Your task to perform on an android device: Play the last video I watched on Youtube Image 0: 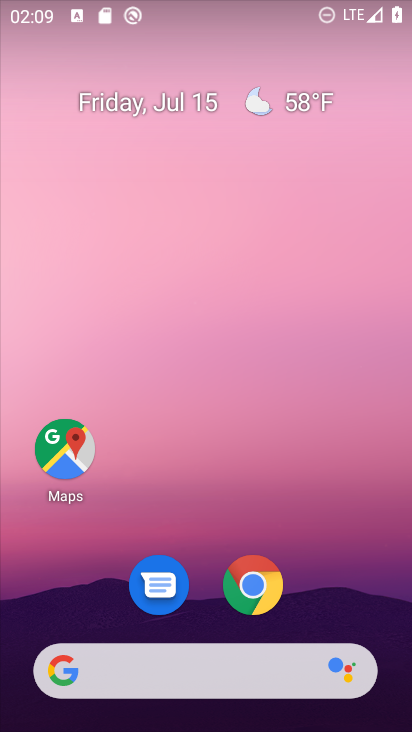
Step 0: drag from (352, 584) to (334, 28)
Your task to perform on an android device: Play the last video I watched on Youtube Image 1: 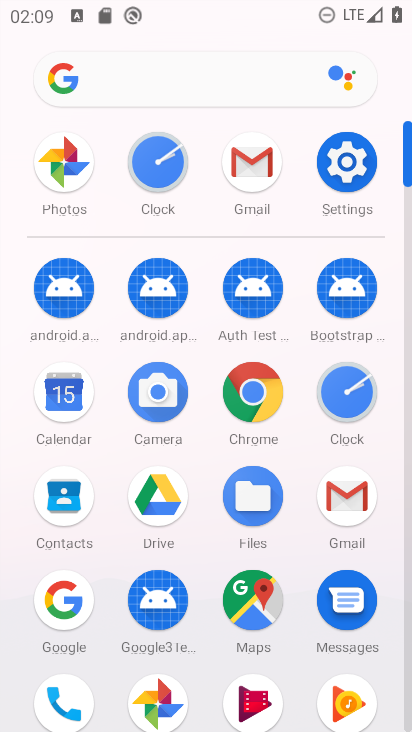
Step 1: drag from (308, 496) to (305, 281)
Your task to perform on an android device: Play the last video I watched on Youtube Image 2: 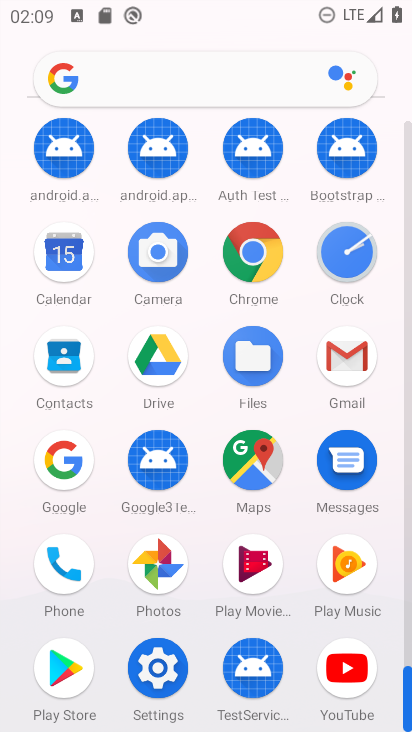
Step 2: click (357, 667)
Your task to perform on an android device: Play the last video I watched on Youtube Image 3: 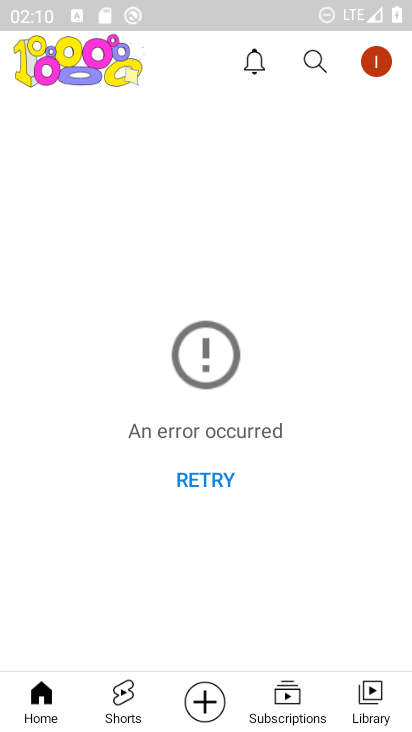
Step 3: click (378, 700)
Your task to perform on an android device: Play the last video I watched on Youtube Image 4: 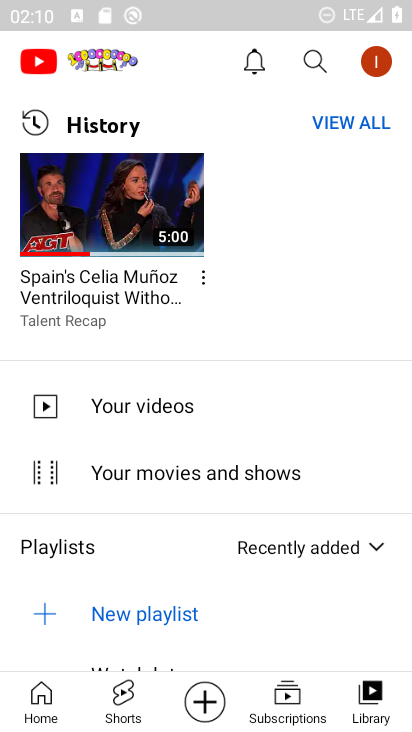
Step 4: click (118, 213)
Your task to perform on an android device: Play the last video I watched on Youtube Image 5: 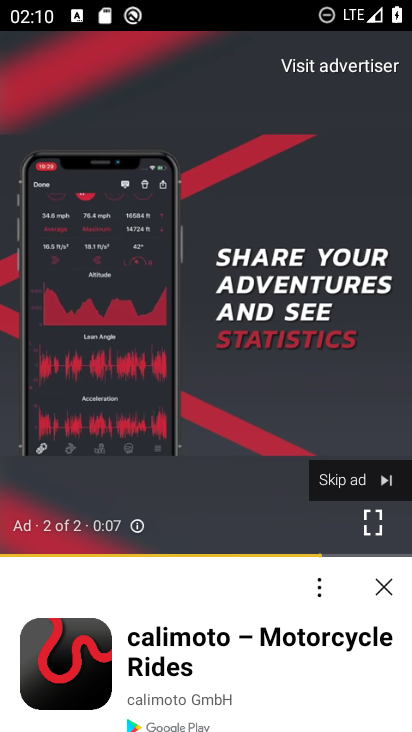
Step 5: click (340, 487)
Your task to perform on an android device: Play the last video I watched on Youtube Image 6: 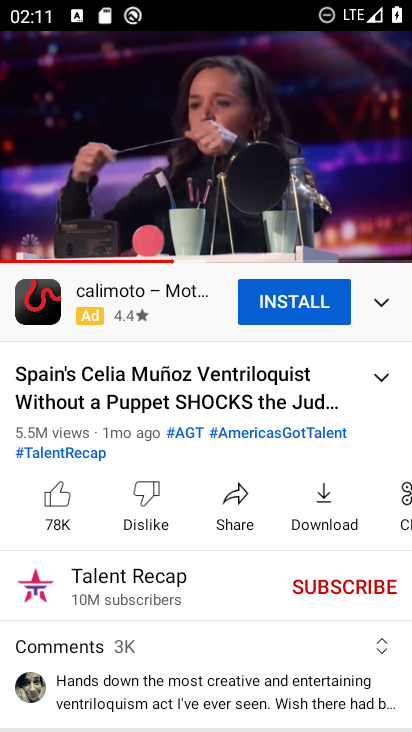
Step 6: task complete